Your task to perform on an android device: Go to eBay Image 0: 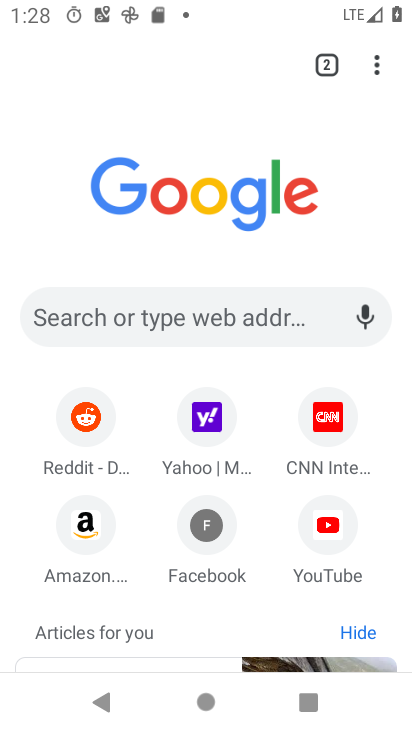
Step 0: click (218, 316)
Your task to perform on an android device: Go to eBay Image 1: 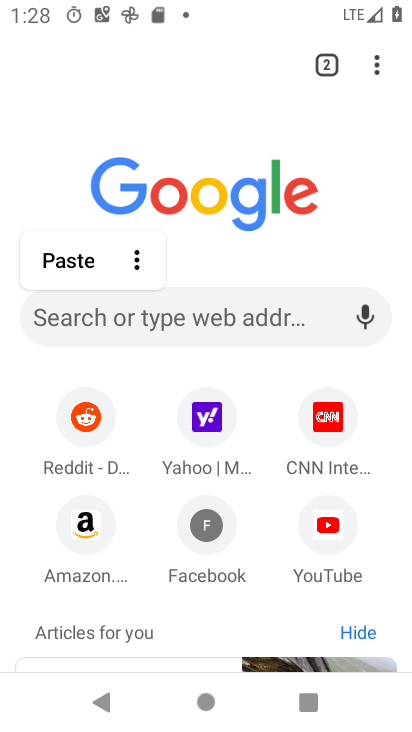
Step 1: type "ebay"
Your task to perform on an android device: Go to eBay Image 2: 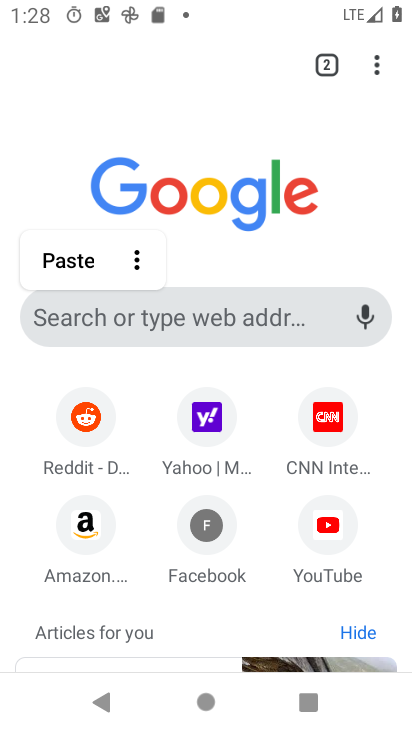
Step 2: click (104, 328)
Your task to perform on an android device: Go to eBay Image 3: 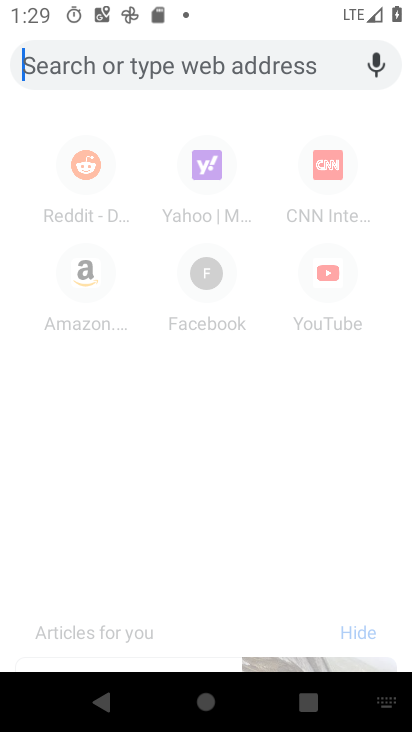
Step 3: type "ebay"
Your task to perform on an android device: Go to eBay Image 4: 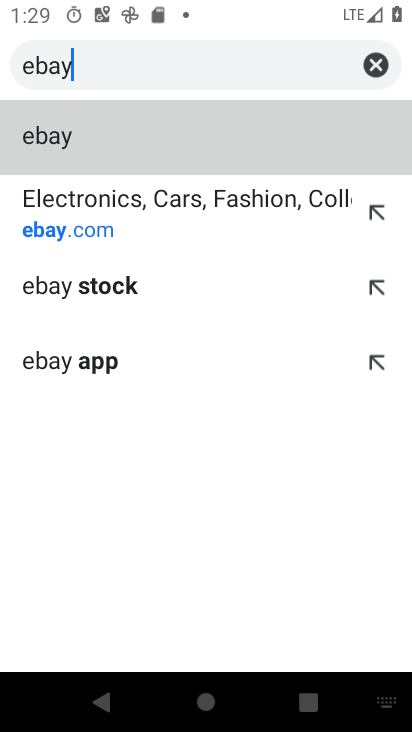
Step 4: click (51, 224)
Your task to perform on an android device: Go to eBay Image 5: 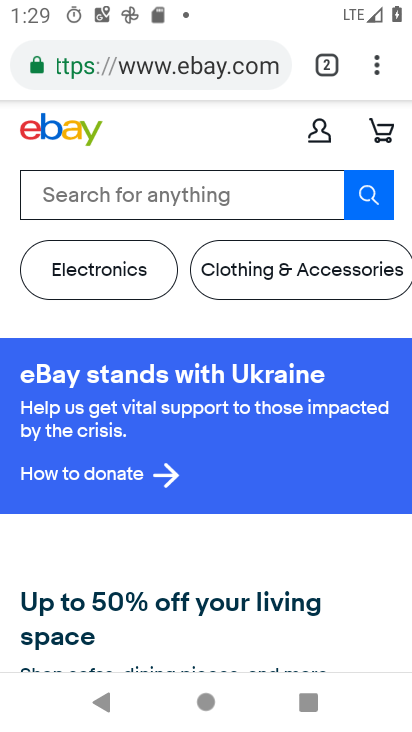
Step 5: task complete